Your task to perform on an android device: Open CNN.com Image 0: 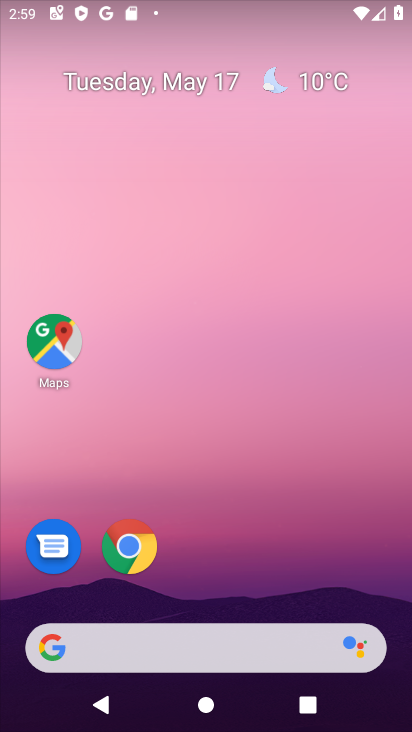
Step 0: click (148, 556)
Your task to perform on an android device: Open CNN.com Image 1: 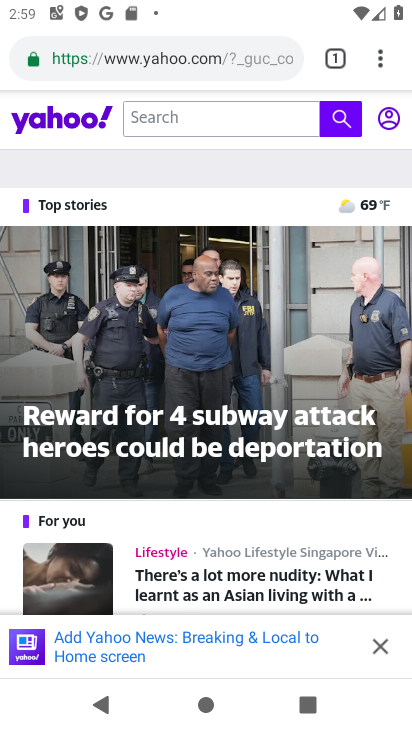
Step 1: click (191, 57)
Your task to perform on an android device: Open CNN.com Image 2: 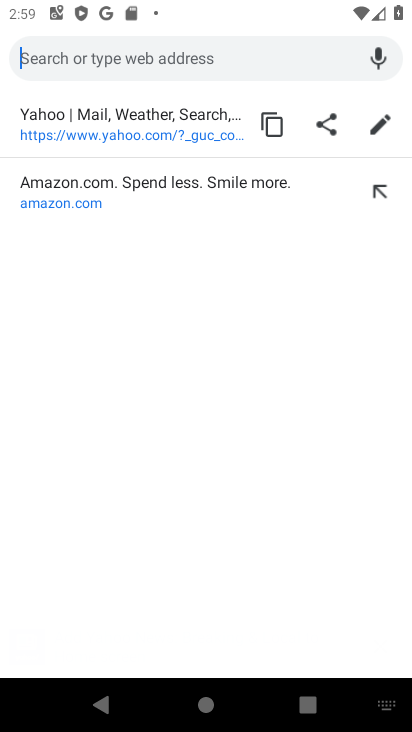
Step 2: type "CNN.com"
Your task to perform on an android device: Open CNN.com Image 3: 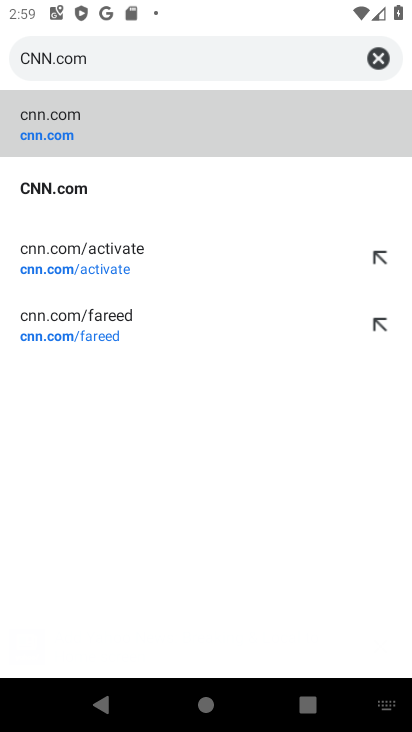
Step 3: click (82, 187)
Your task to perform on an android device: Open CNN.com Image 4: 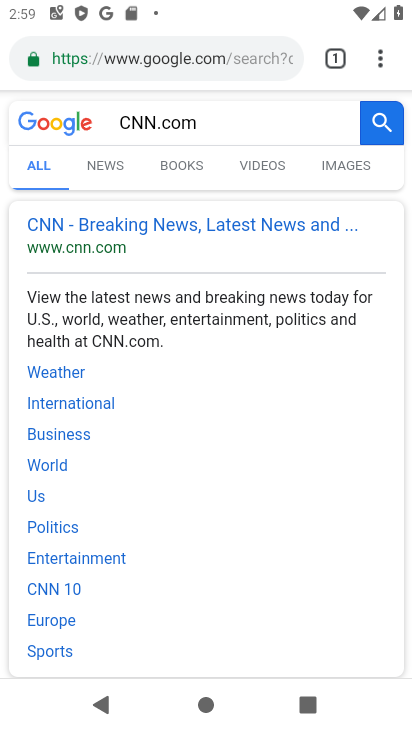
Step 4: task complete